Your task to perform on an android device: Turn off the flashlight Image 0: 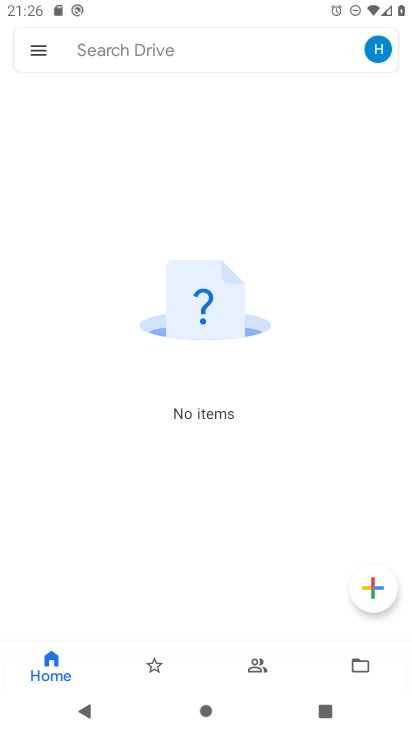
Step 0: press home button
Your task to perform on an android device: Turn off the flashlight Image 1: 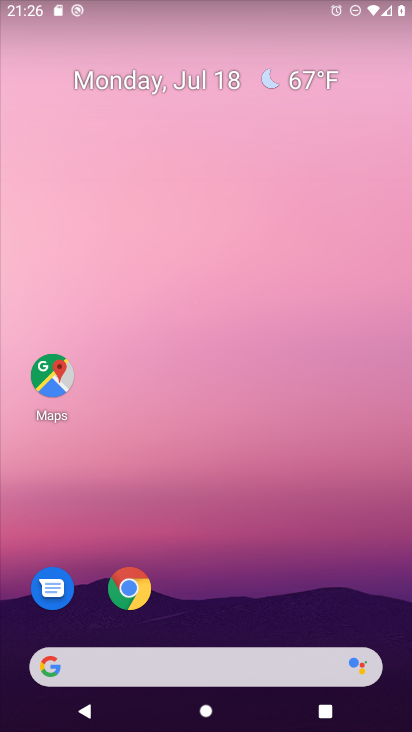
Step 1: drag from (221, 13) to (223, 320)
Your task to perform on an android device: Turn off the flashlight Image 2: 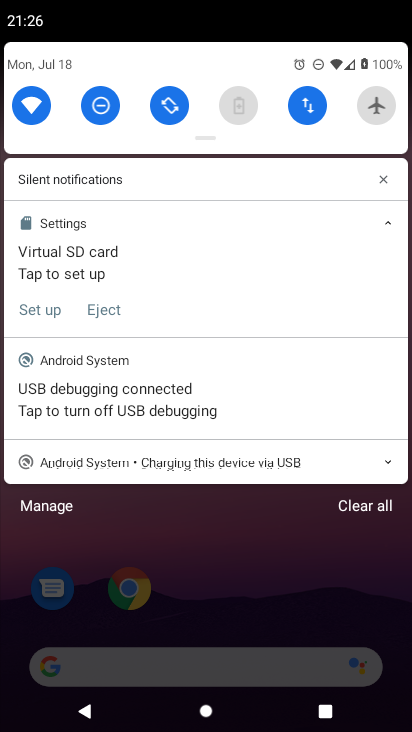
Step 2: drag from (210, 140) to (183, 477)
Your task to perform on an android device: Turn off the flashlight Image 3: 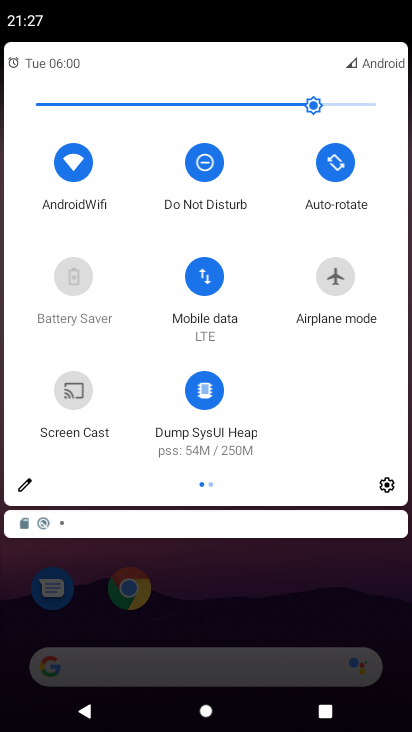
Step 3: click (26, 487)
Your task to perform on an android device: Turn off the flashlight Image 4: 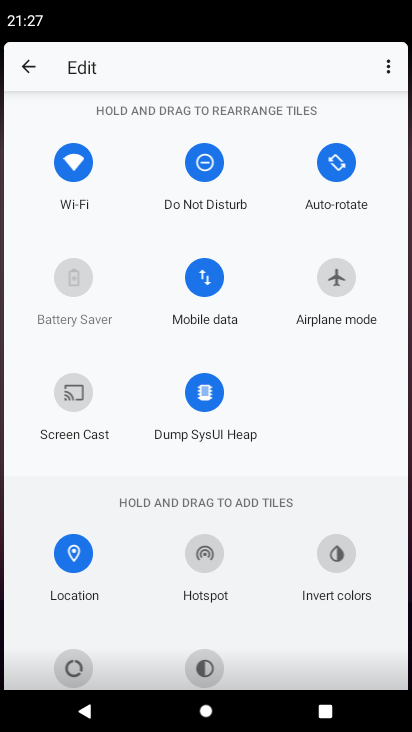
Step 4: task complete